Your task to perform on an android device: Do I have any events today? Image 0: 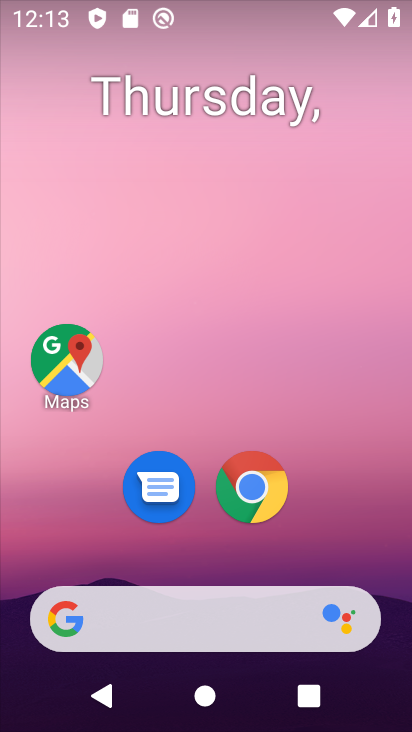
Step 0: drag from (353, 552) to (278, 105)
Your task to perform on an android device: Do I have any events today? Image 1: 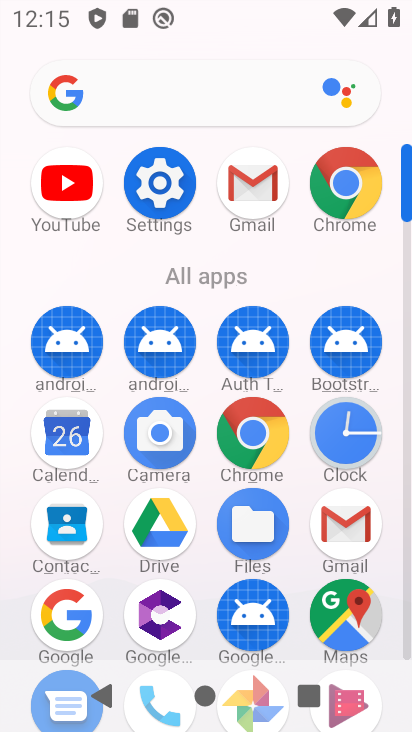
Step 1: click (91, 423)
Your task to perform on an android device: Do I have any events today? Image 2: 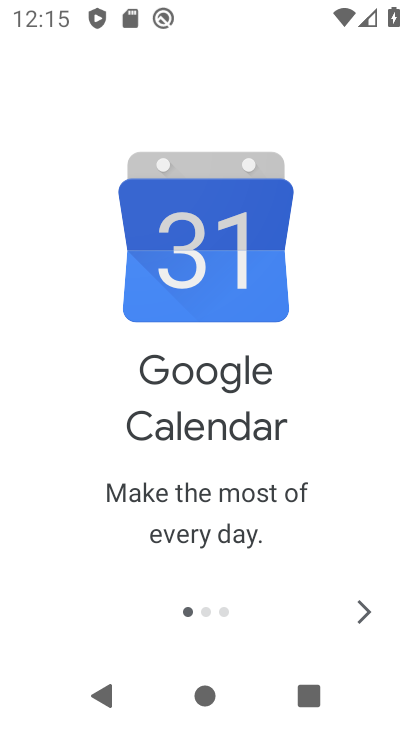
Step 2: click (360, 613)
Your task to perform on an android device: Do I have any events today? Image 3: 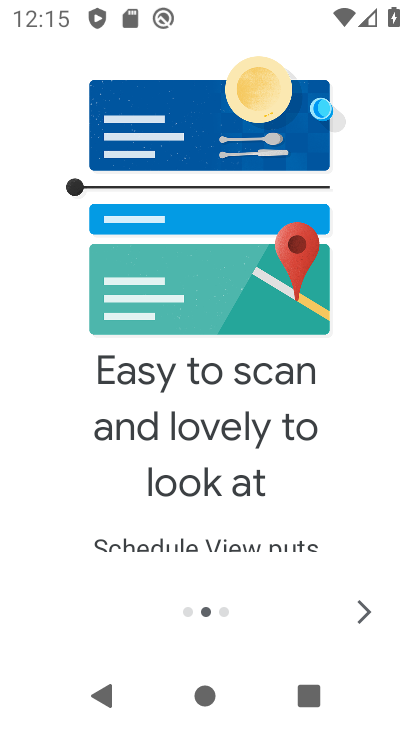
Step 3: click (344, 622)
Your task to perform on an android device: Do I have any events today? Image 4: 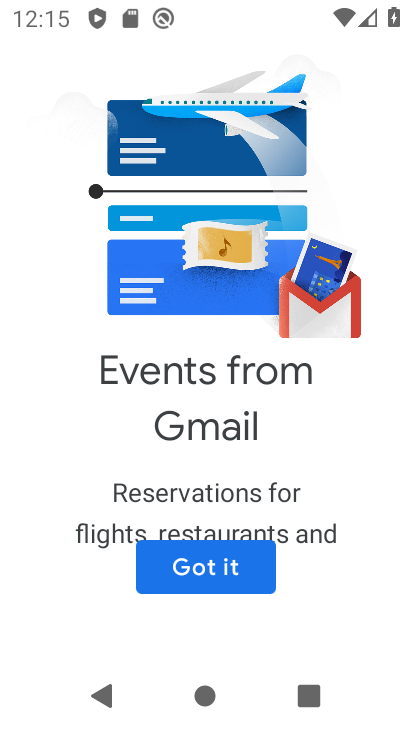
Step 4: click (228, 563)
Your task to perform on an android device: Do I have any events today? Image 5: 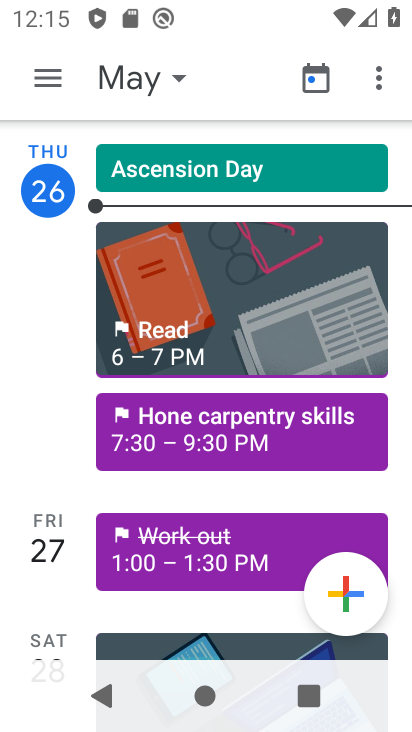
Step 5: click (169, 82)
Your task to perform on an android device: Do I have any events today? Image 6: 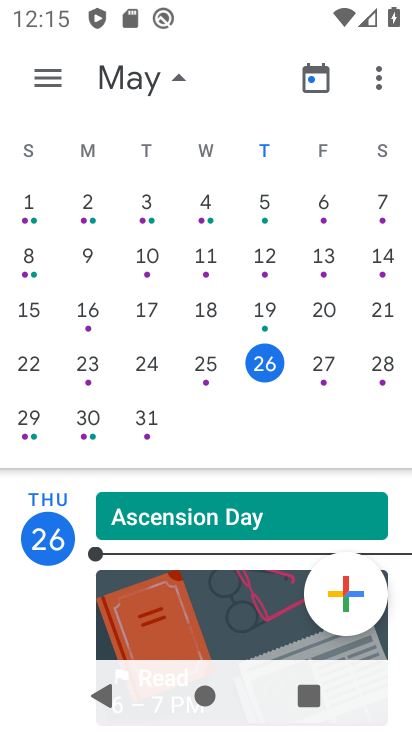
Step 6: click (146, 82)
Your task to perform on an android device: Do I have any events today? Image 7: 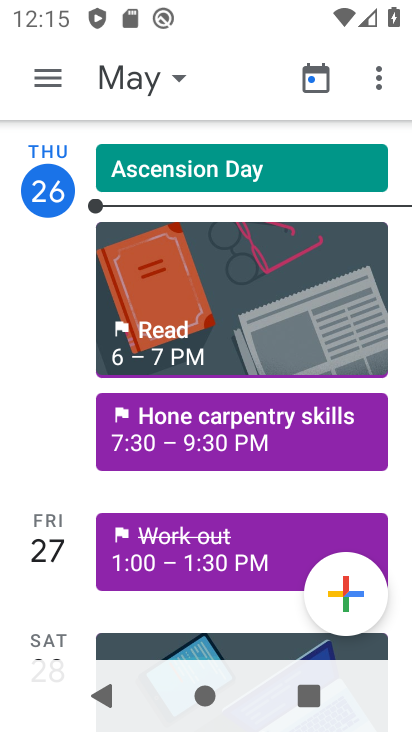
Step 7: task complete